Your task to perform on an android device: open wifi settings Image 0: 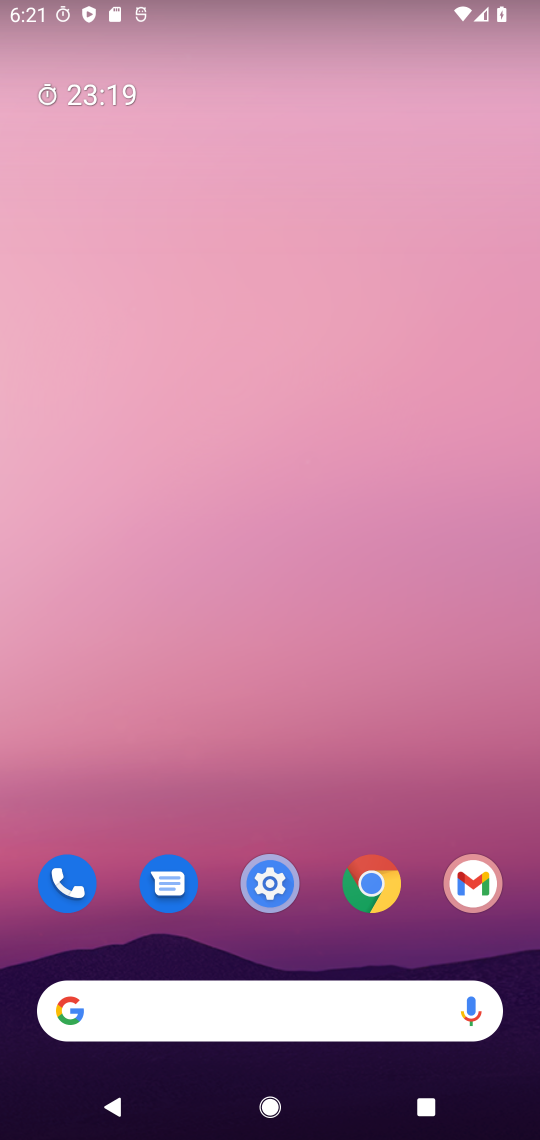
Step 0: click (270, 903)
Your task to perform on an android device: open wifi settings Image 1: 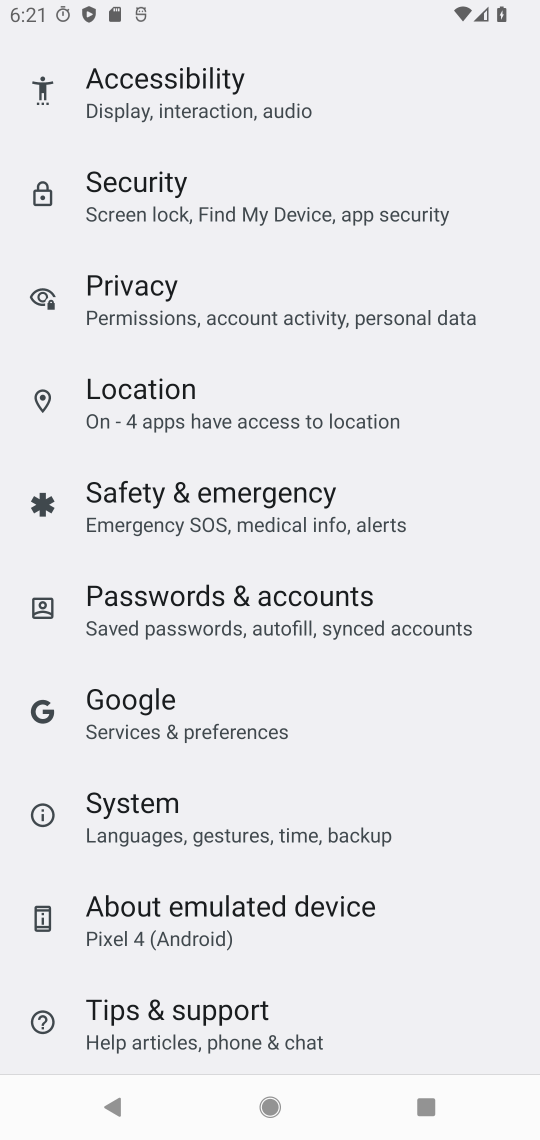
Step 1: drag from (257, 350) to (291, 848)
Your task to perform on an android device: open wifi settings Image 2: 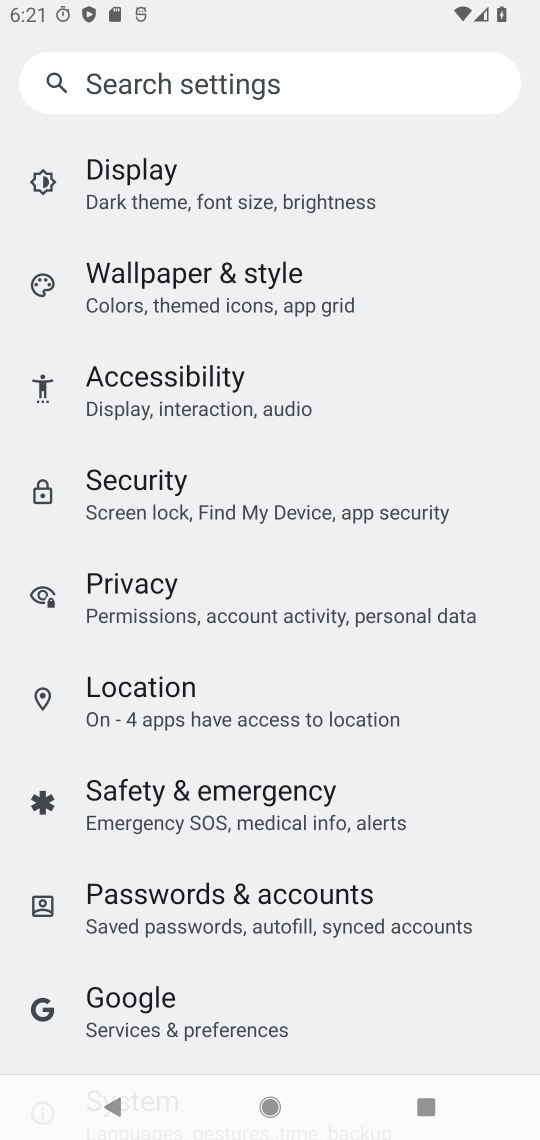
Step 2: drag from (264, 464) to (355, 1001)
Your task to perform on an android device: open wifi settings Image 3: 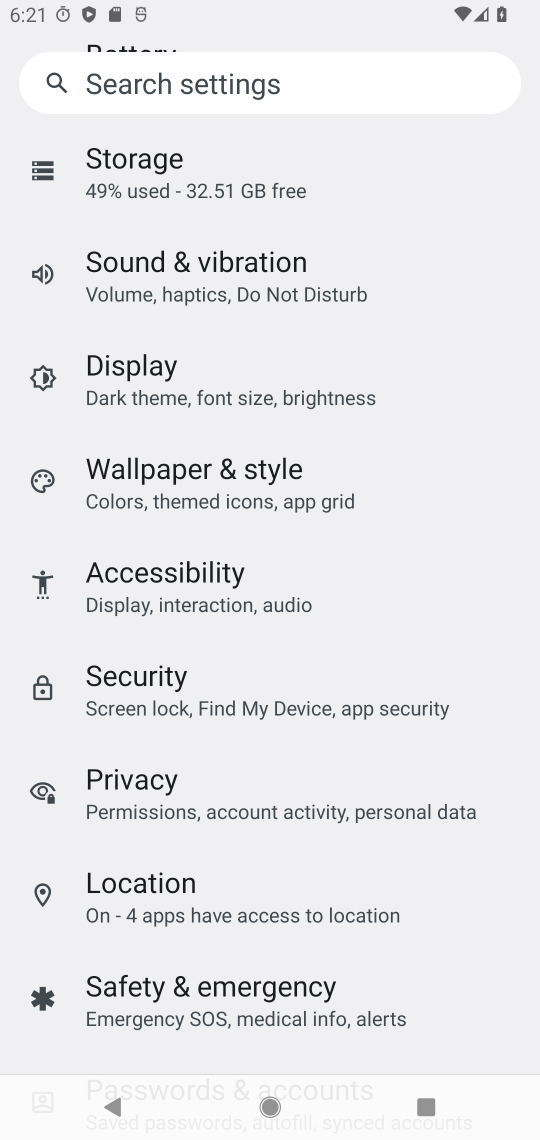
Step 3: drag from (317, 353) to (396, 940)
Your task to perform on an android device: open wifi settings Image 4: 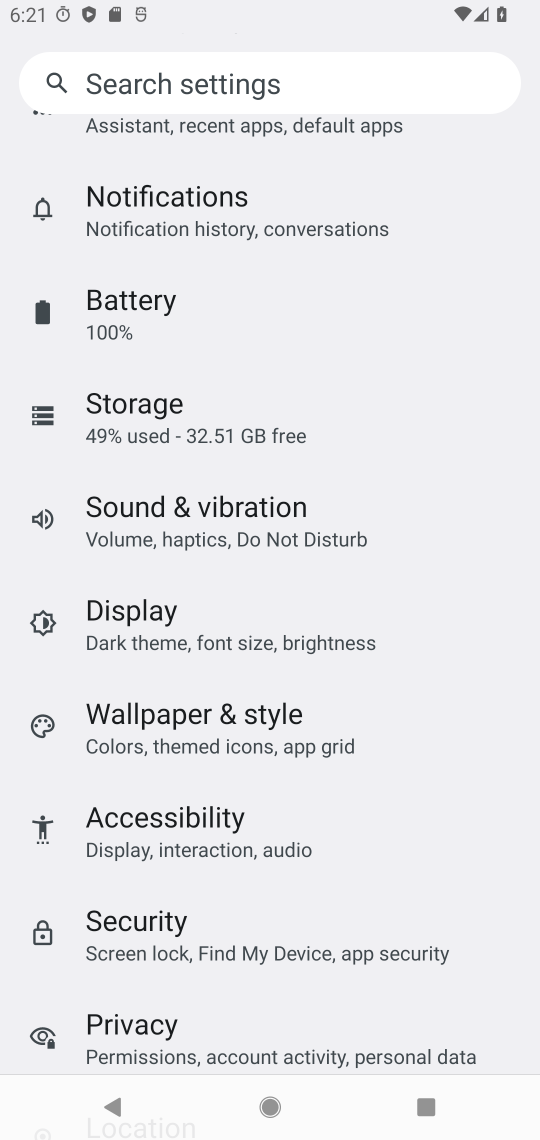
Step 4: drag from (264, 379) to (340, 963)
Your task to perform on an android device: open wifi settings Image 5: 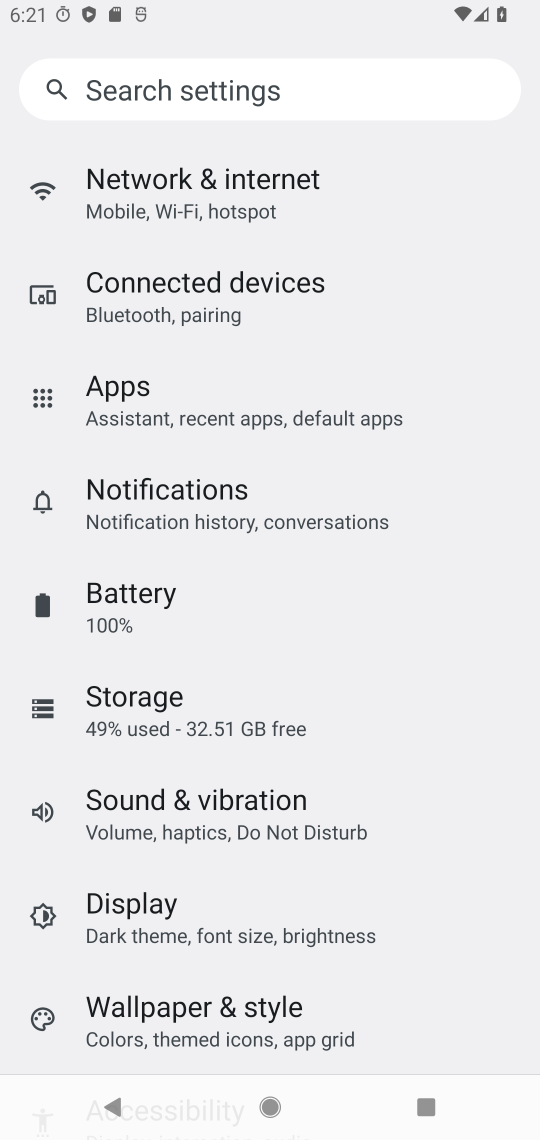
Step 5: click (170, 223)
Your task to perform on an android device: open wifi settings Image 6: 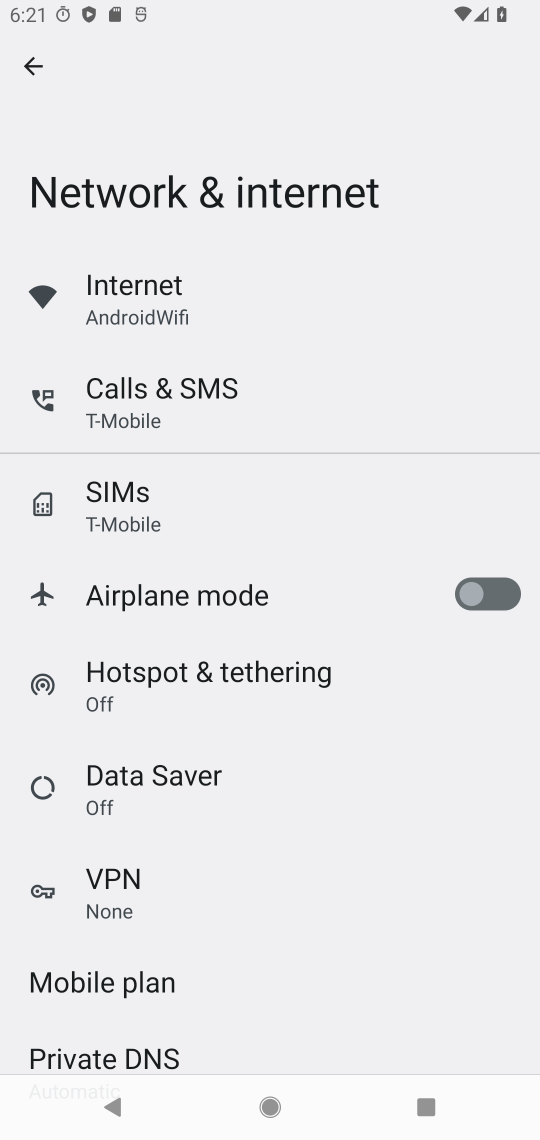
Step 6: click (219, 321)
Your task to perform on an android device: open wifi settings Image 7: 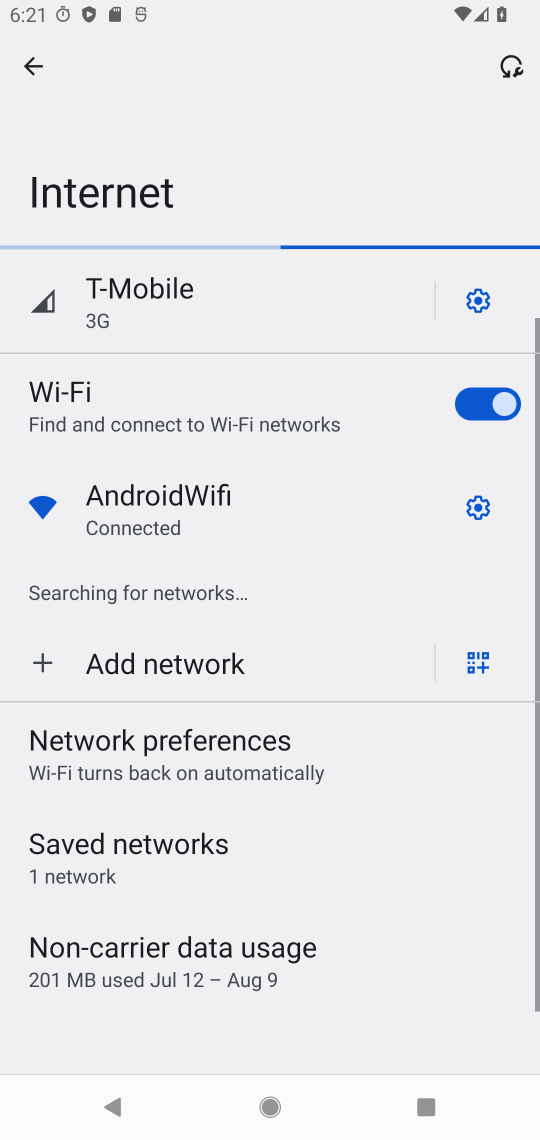
Step 7: task complete